Your task to perform on an android device: Go to network settings Image 0: 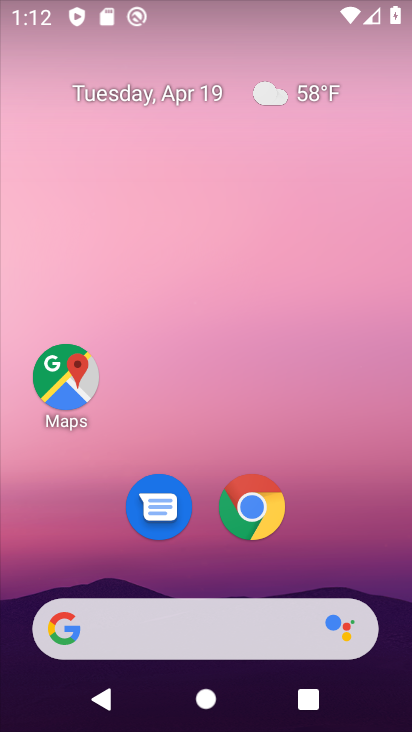
Step 0: drag from (218, 542) to (212, 193)
Your task to perform on an android device: Go to network settings Image 1: 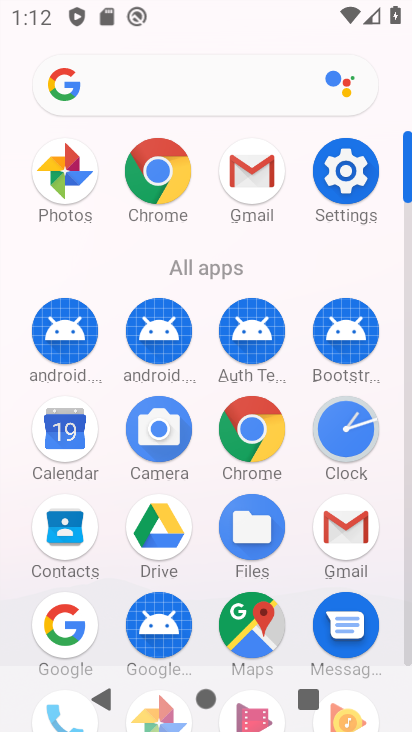
Step 1: click (347, 164)
Your task to perform on an android device: Go to network settings Image 2: 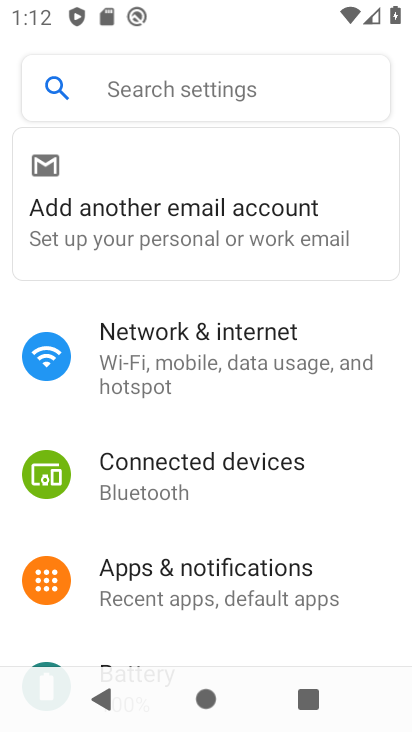
Step 2: click (278, 345)
Your task to perform on an android device: Go to network settings Image 3: 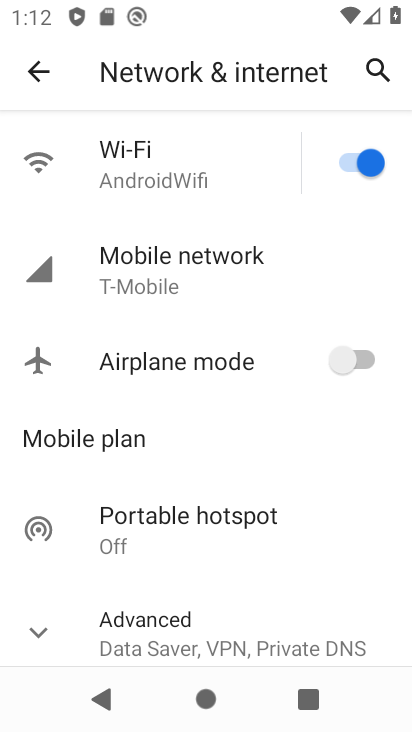
Step 3: click (164, 161)
Your task to perform on an android device: Go to network settings Image 4: 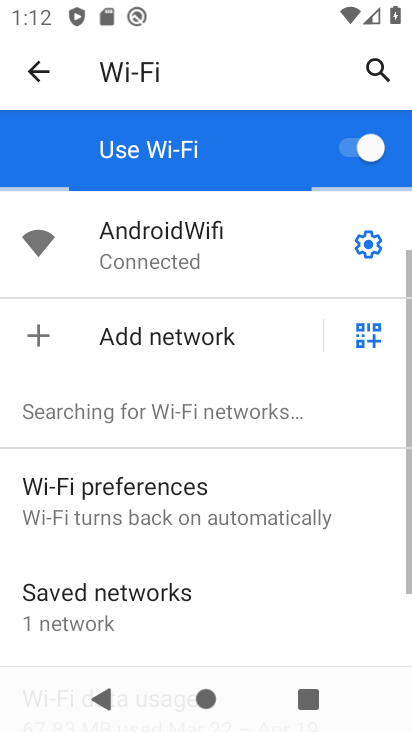
Step 4: click (366, 241)
Your task to perform on an android device: Go to network settings Image 5: 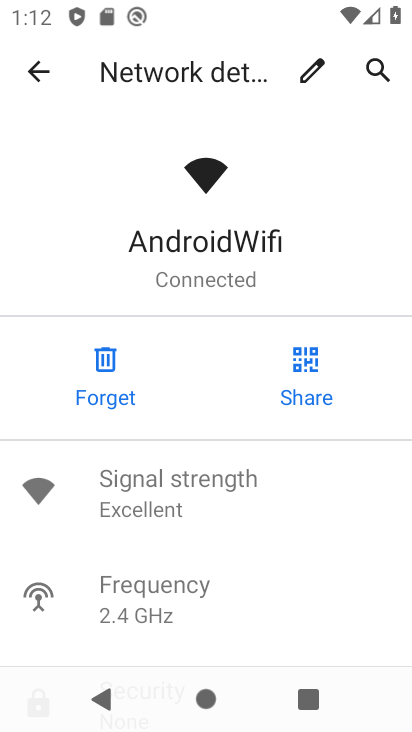
Step 5: task complete